Your task to perform on an android device: turn off notifications in google photos Image 0: 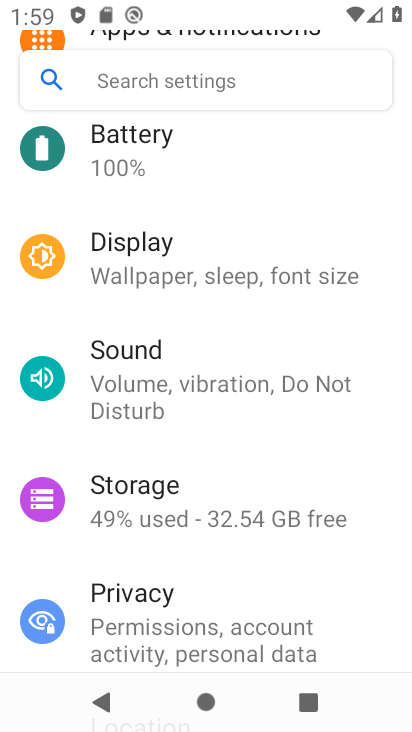
Step 0: press home button
Your task to perform on an android device: turn off notifications in google photos Image 1: 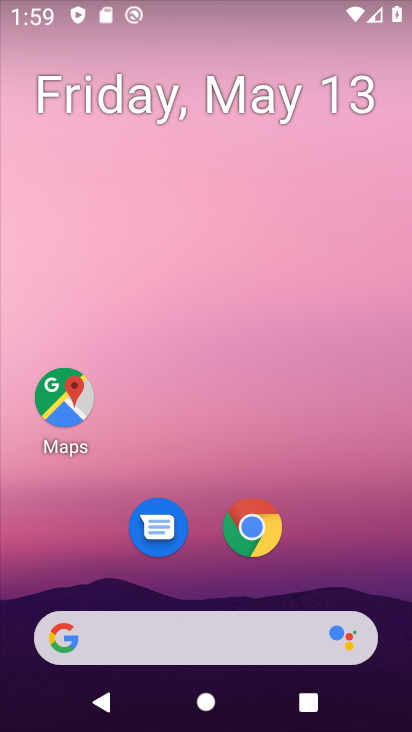
Step 1: drag from (221, 575) to (227, 4)
Your task to perform on an android device: turn off notifications in google photos Image 2: 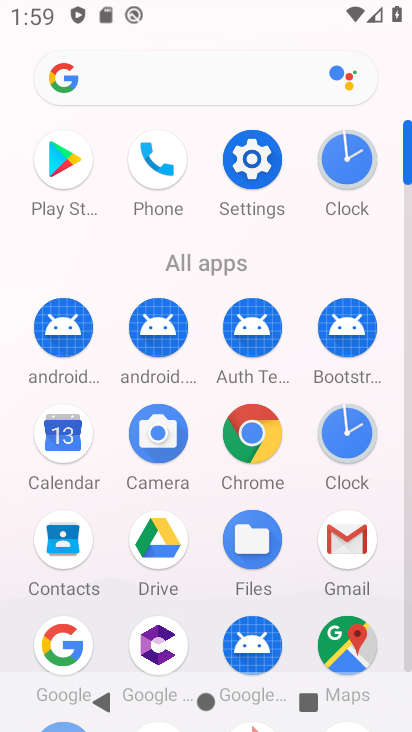
Step 2: drag from (212, 618) to (173, 192)
Your task to perform on an android device: turn off notifications in google photos Image 3: 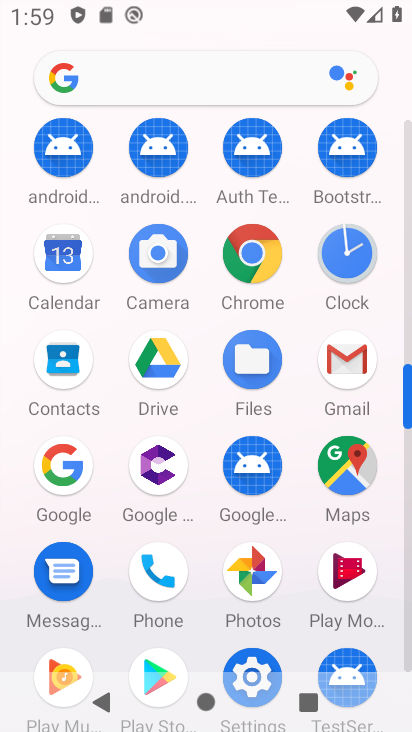
Step 3: click (253, 594)
Your task to perform on an android device: turn off notifications in google photos Image 4: 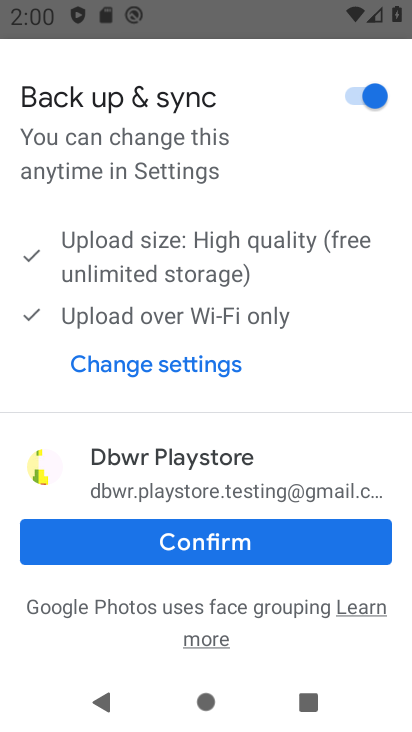
Step 4: press home button
Your task to perform on an android device: turn off notifications in google photos Image 5: 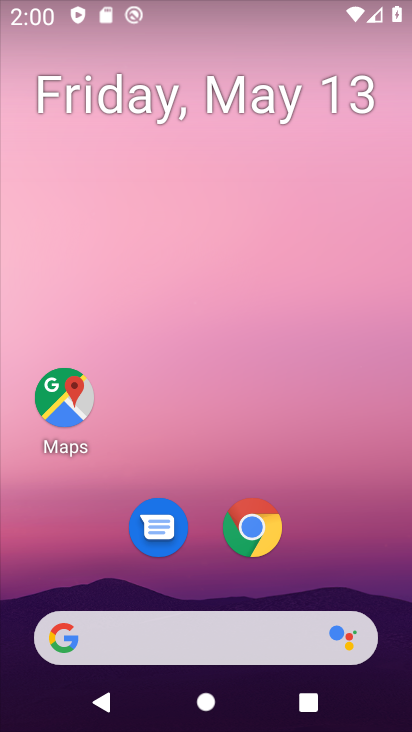
Step 5: click (201, 563)
Your task to perform on an android device: turn off notifications in google photos Image 6: 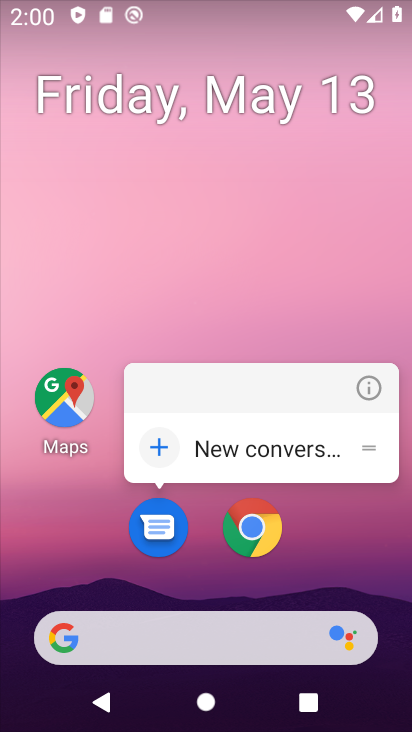
Step 6: drag from (193, 577) to (192, 223)
Your task to perform on an android device: turn off notifications in google photos Image 7: 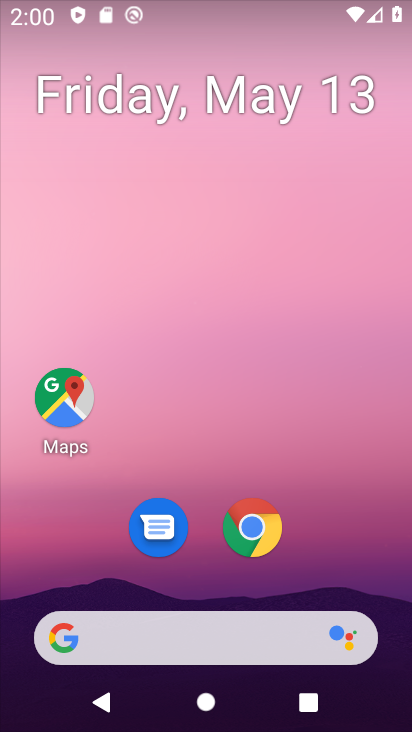
Step 7: drag from (208, 571) to (236, 88)
Your task to perform on an android device: turn off notifications in google photos Image 8: 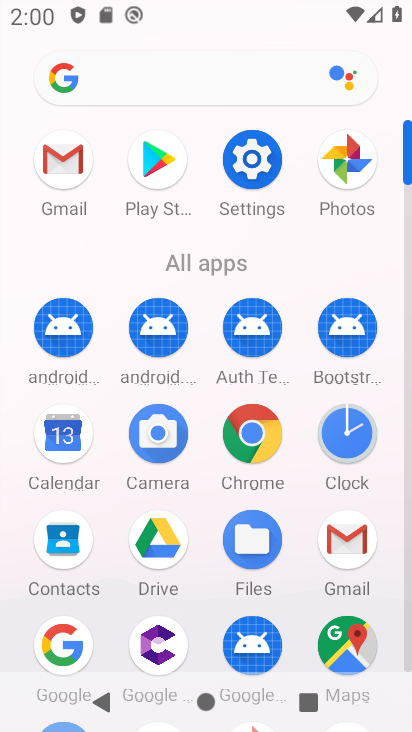
Step 8: click (348, 169)
Your task to perform on an android device: turn off notifications in google photos Image 9: 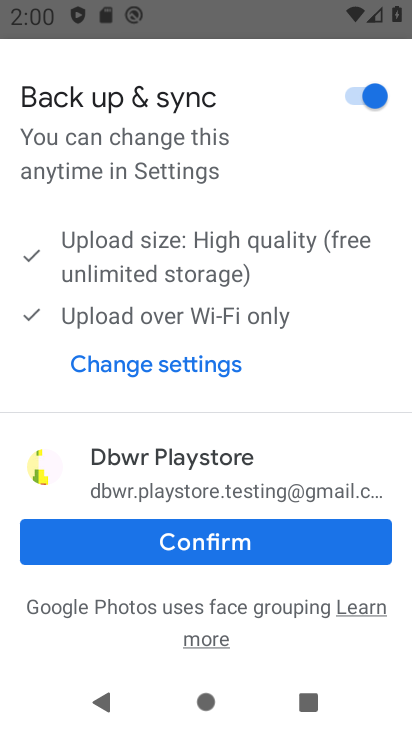
Step 9: click (235, 557)
Your task to perform on an android device: turn off notifications in google photos Image 10: 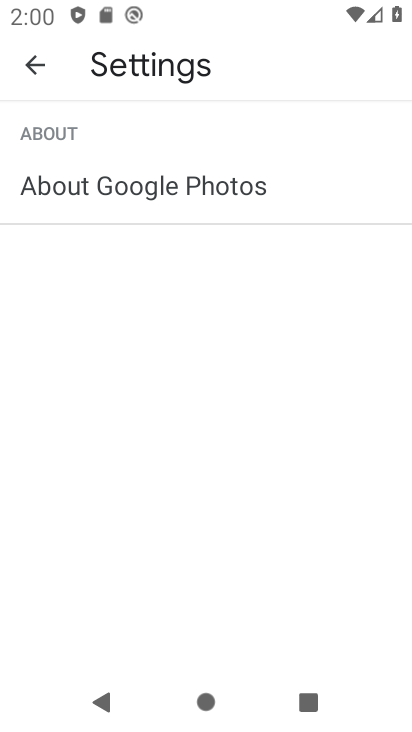
Step 10: click (48, 64)
Your task to perform on an android device: turn off notifications in google photos Image 11: 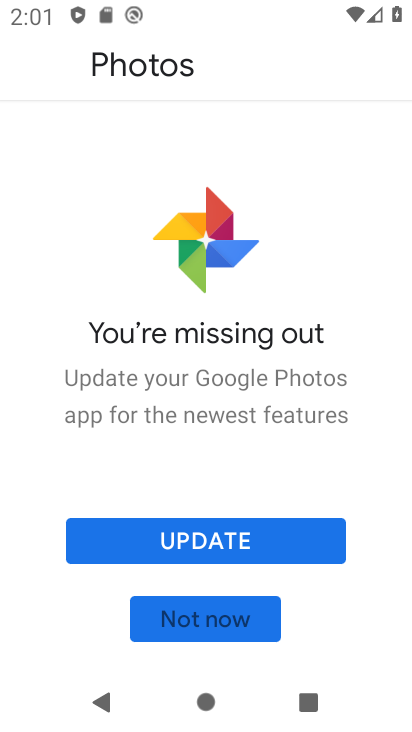
Step 11: click (198, 634)
Your task to perform on an android device: turn off notifications in google photos Image 12: 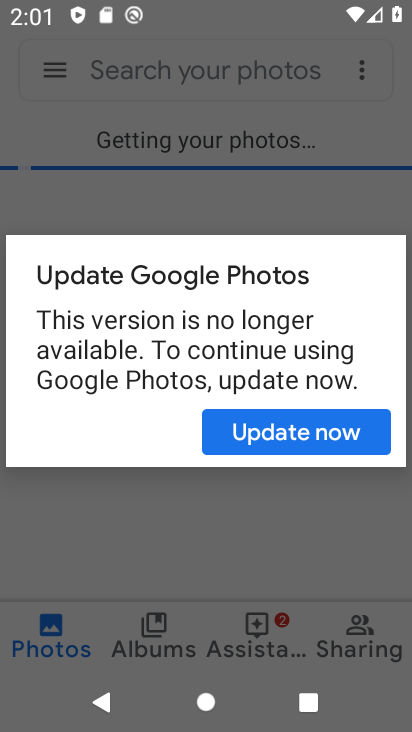
Step 12: click (293, 445)
Your task to perform on an android device: turn off notifications in google photos Image 13: 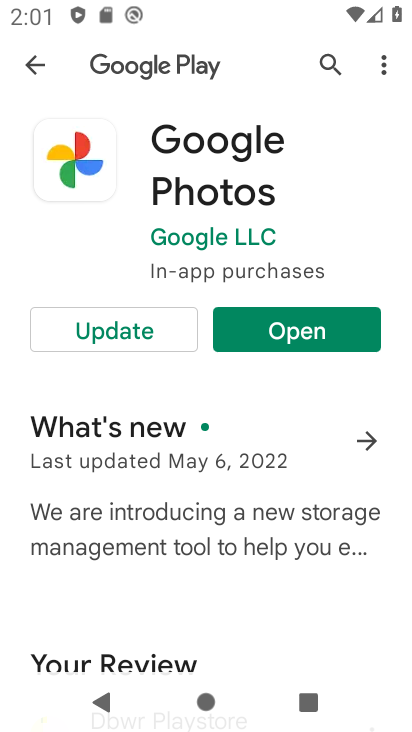
Step 13: click (270, 333)
Your task to perform on an android device: turn off notifications in google photos Image 14: 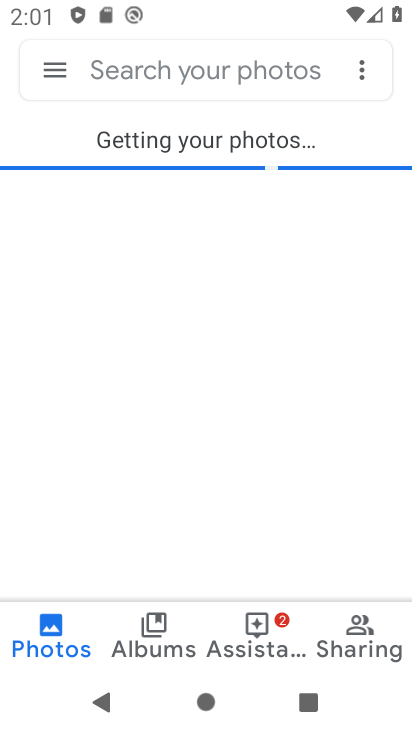
Step 14: click (74, 54)
Your task to perform on an android device: turn off notifications in google photos Image 15: 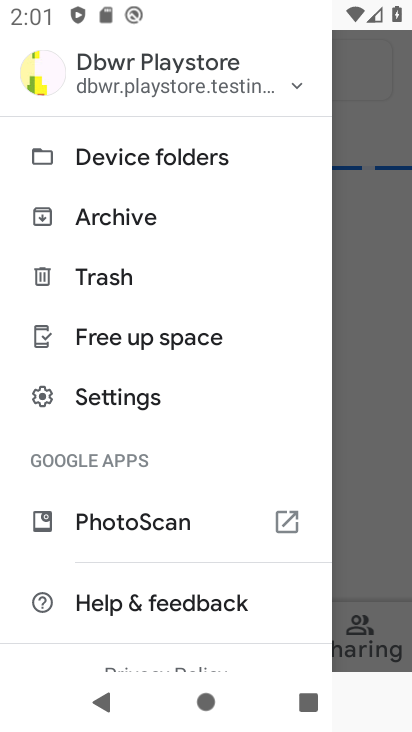
Step 15: click (149, 407)
Your task to perform on an android device: turn off notifications in google photos Image 16: 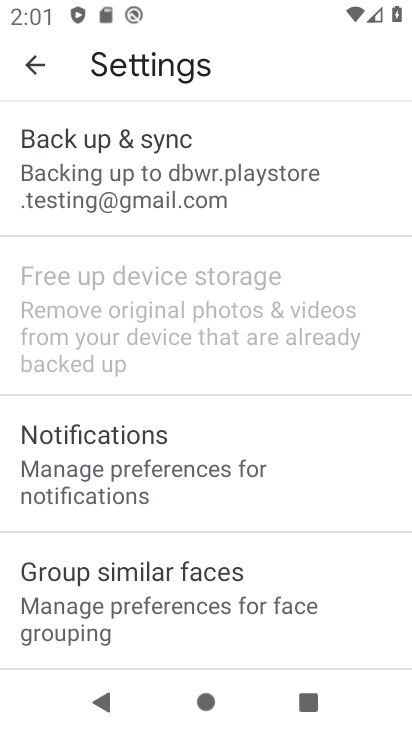
Step 16: click (172, 478)
Your task to perform on an android device: turn off notifications in google photos Image 17: 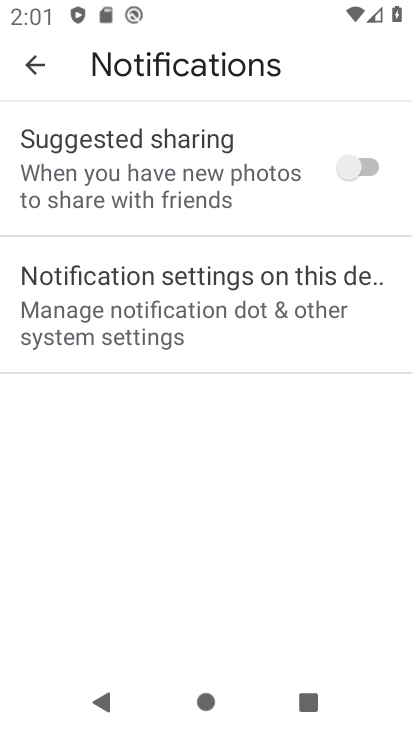
Step 17: click (209, 354)
Your task to perform on an android device: turn off notifications in google photos Image 18: 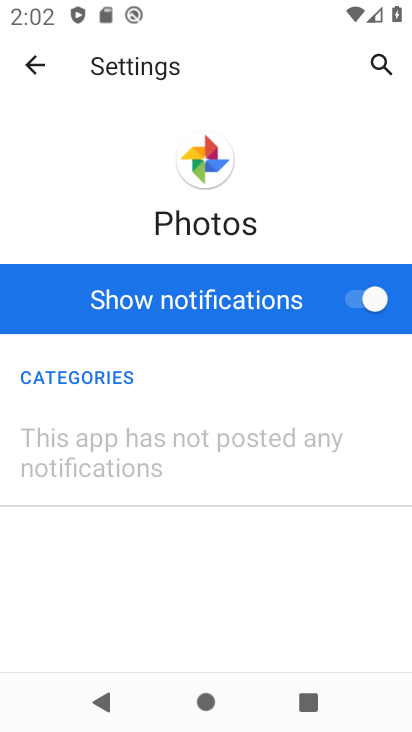
Step 18: click (209, 354)
Your task to perform on an android device: turn off notifications in google photos Image 19: 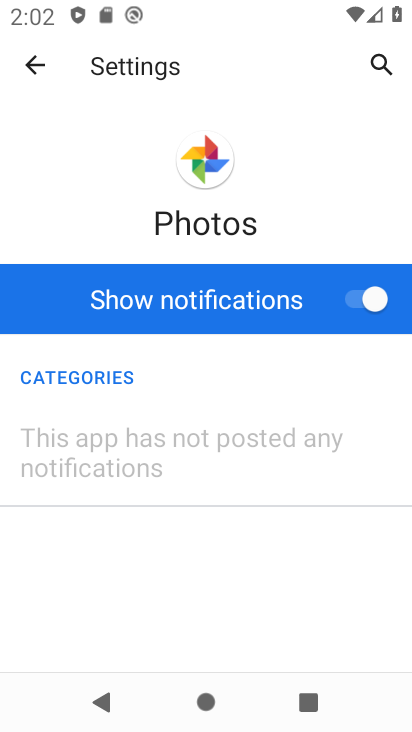
Step 19: click (361, 285)
Your task to perform on an android device: turn off notifications in google photos Image 20: 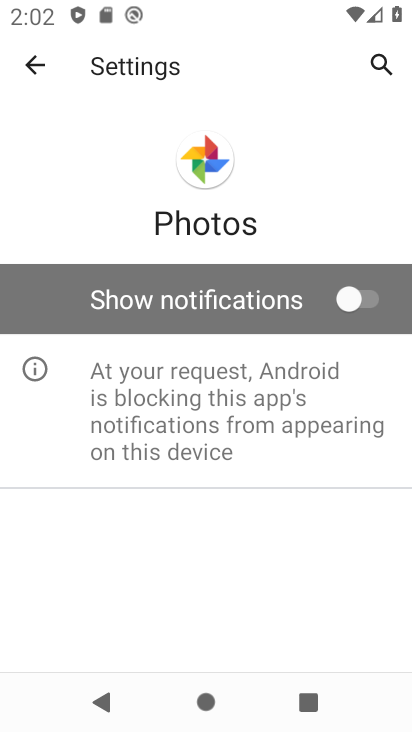
Step 20: task complete